Your task to perform on an android device: open a new tab in the chrome app Image 0: 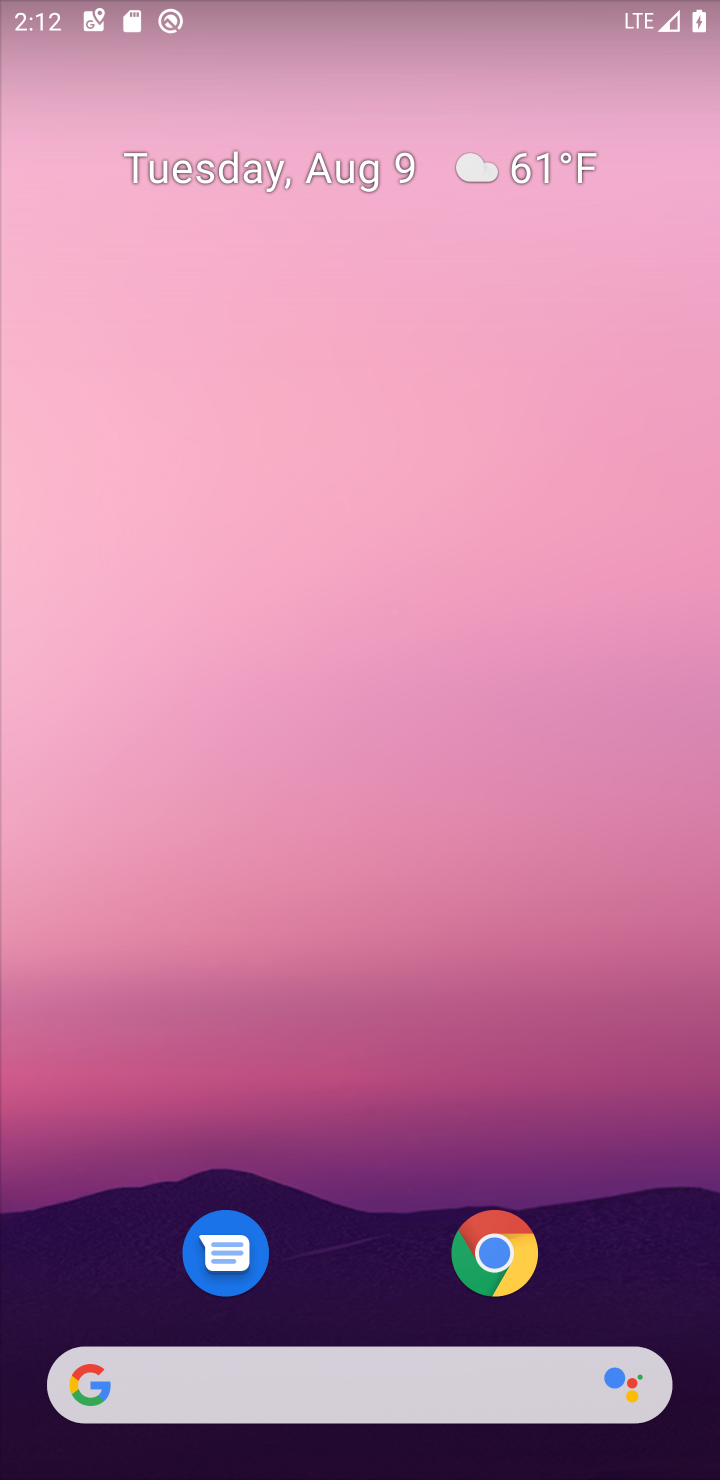
Step 0: drag from (665, 1265) to (308, 18)
Your task to perform on an android device: open a new tab in the chrome app Image 1: 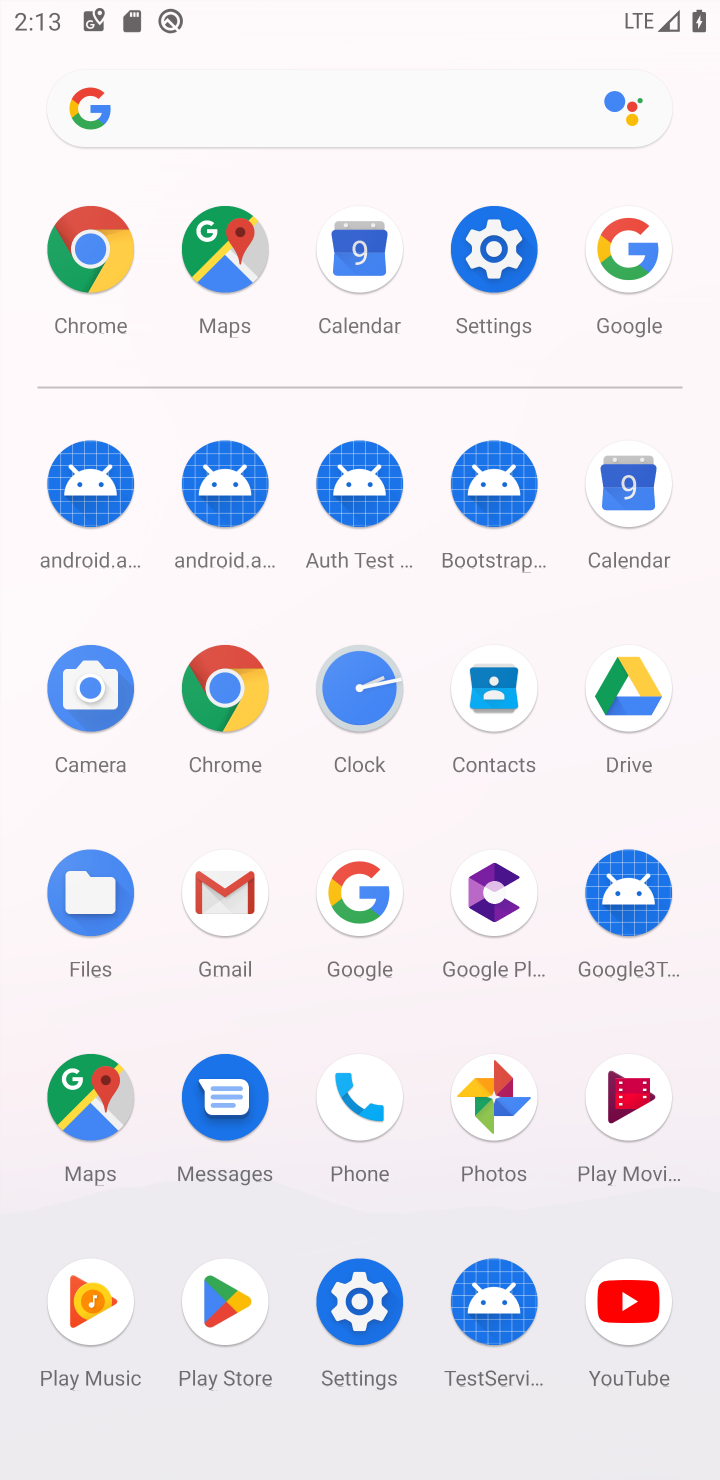
Step 1: click (249, 694)
Your task to perform on an android device: open a new tab in the chrome app Image 2: 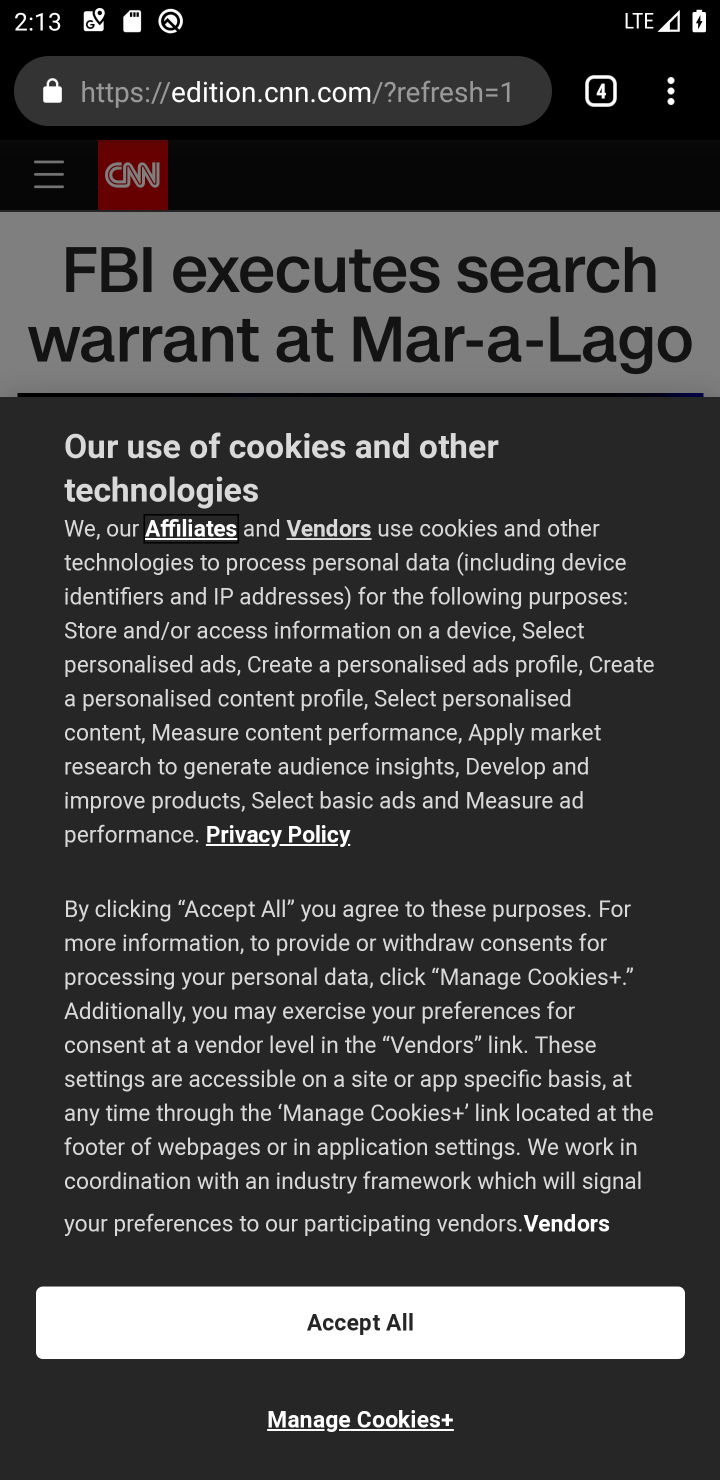
Step 2: click (602, 76)
Your task to perform on an android device: open a new tab in the chrome app Image 3: 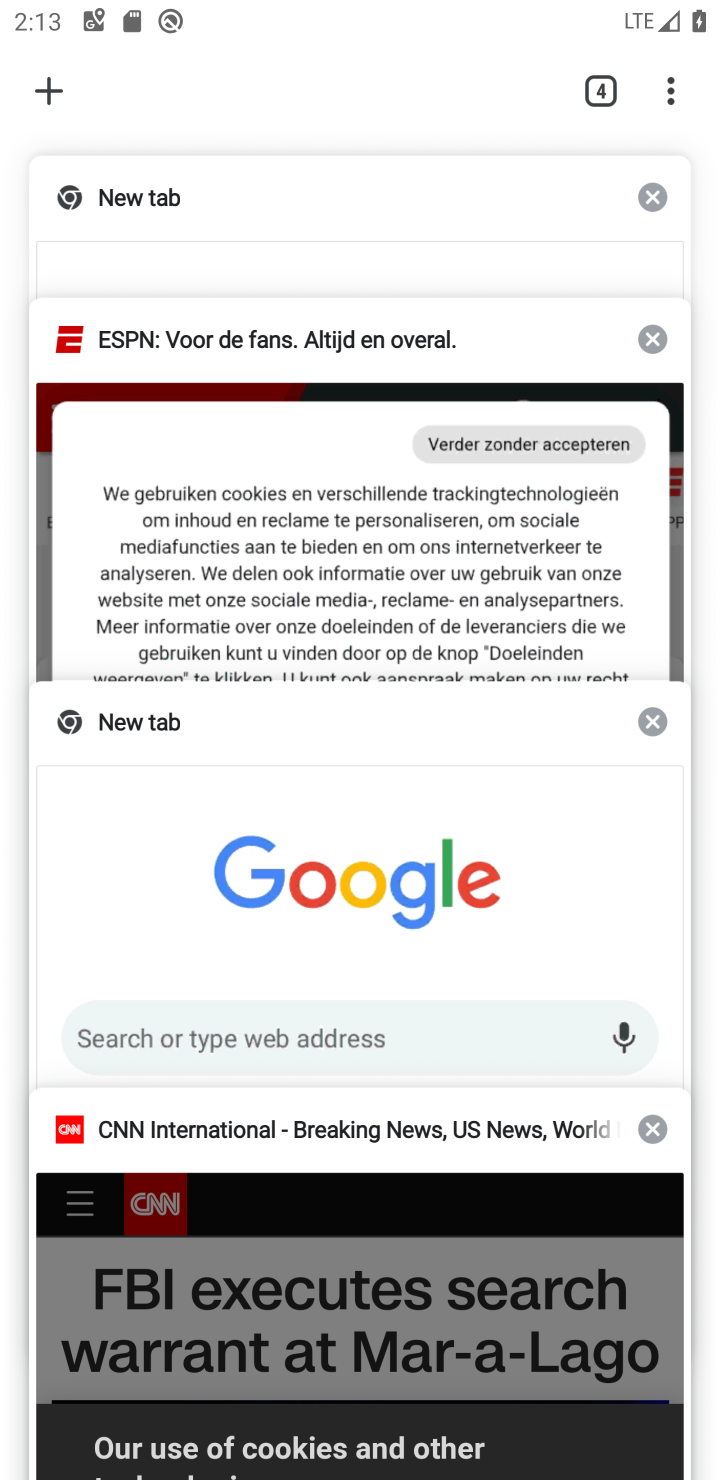
Step 3: click (37, 85)
Your task to perform on an android device: open a new tab in the chrome app Image 4: 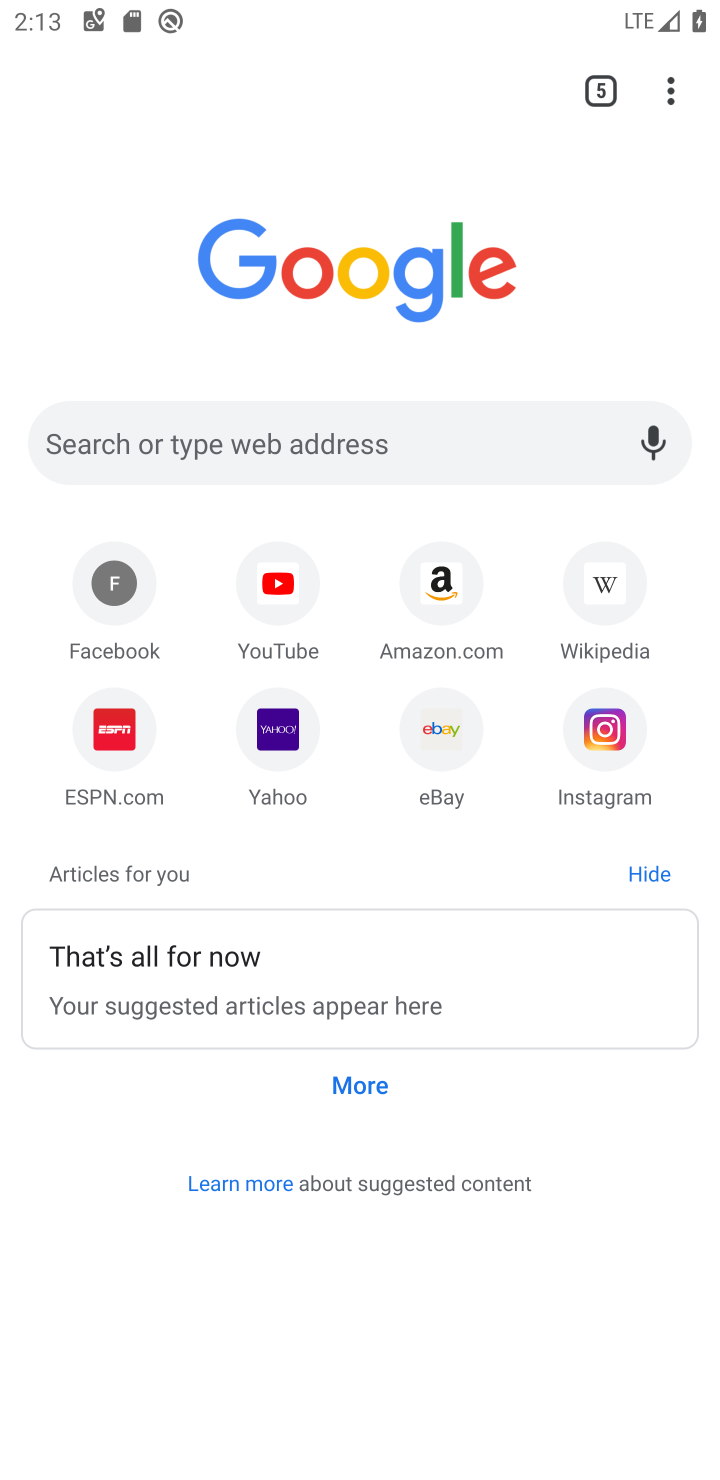
Step 4: task complete